Your task to perform on an android device: Open Chrome and go to settings Image 0: 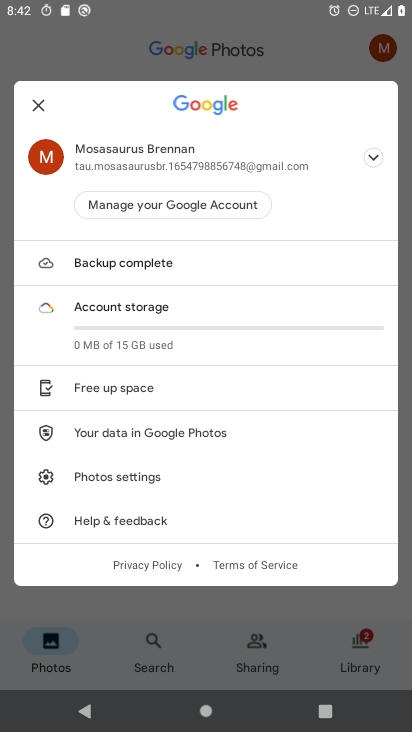
Step 0: press home button
Your task to perform on an android device: Open Chrome and go to settings Image 1: 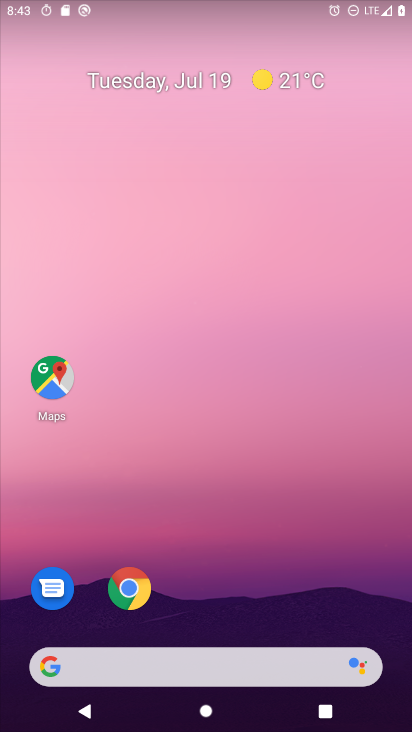
Step 1: drag from (267, 557) to (244, 216)
Your task to perform on an android device: Open Chrome and go to settings Image 2: 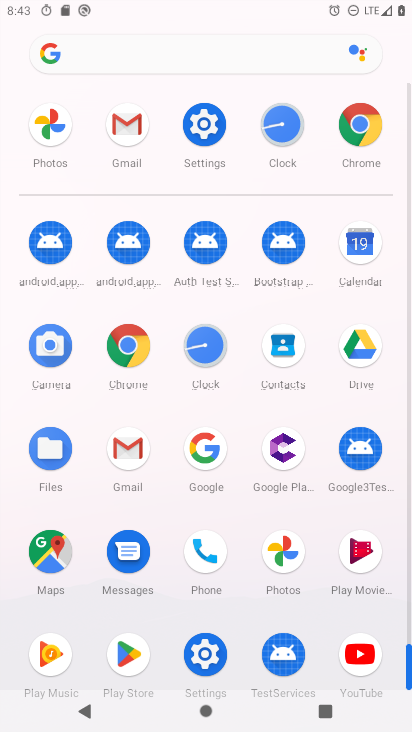
Step 2: click (136, 366)
Your task to perform on an android device: Open Chrome and go to settings Image 3: 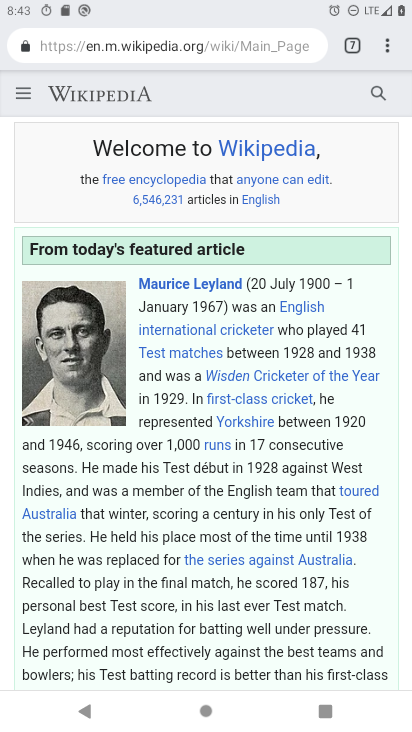
Step 3: click (385, 47)
Your task to perform on an android device: Open Chrome and go to settings Image 4: 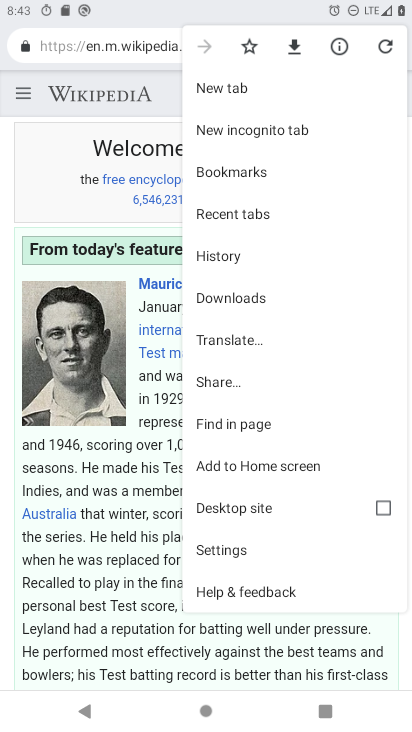
Step 4: click (246, 548)
Your task to perform on an android device: Open Chrome and go to settings Image 5: 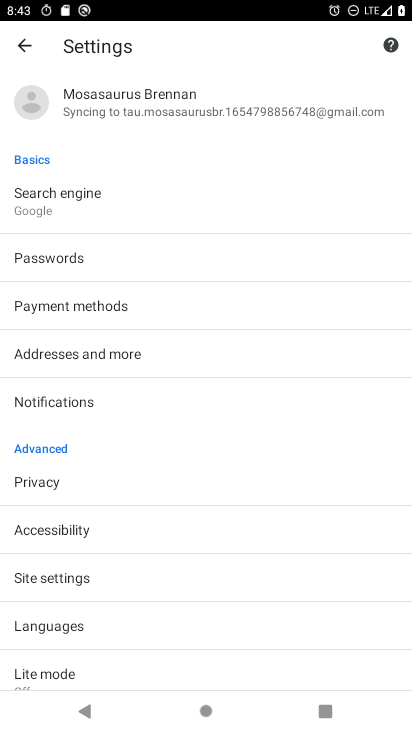
Step 5: task complete